Your task to perform on an android device: all mails in gmail Image 0: 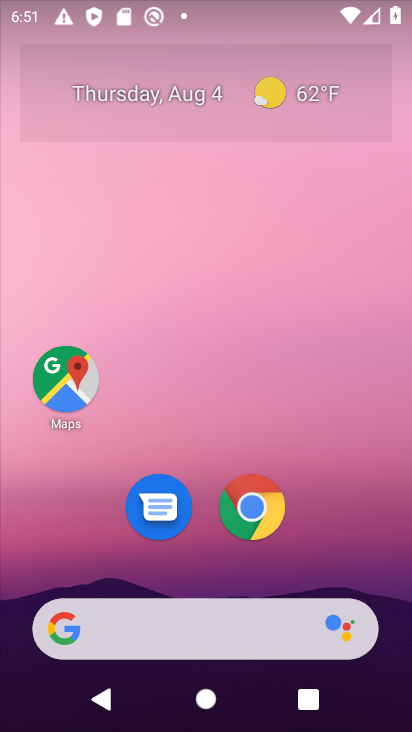
Step 0: drag from (374, 664) to (313, 62)
Your task to perform on an android device: all mails in gmail Image 1: 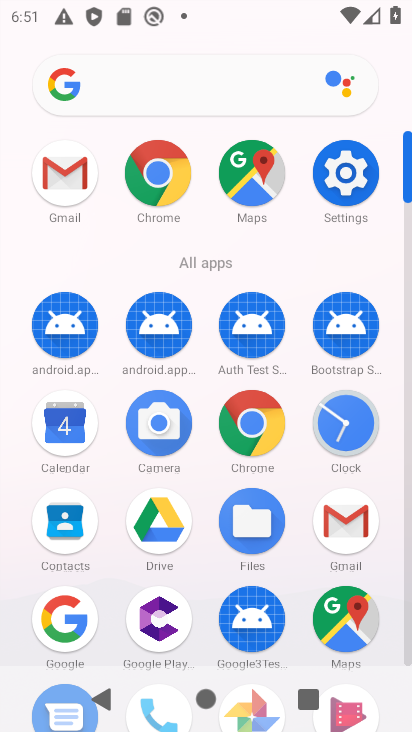
Step 1: click (67, 188)
Your task to perform on an android device: all mails in gmail Image 2: 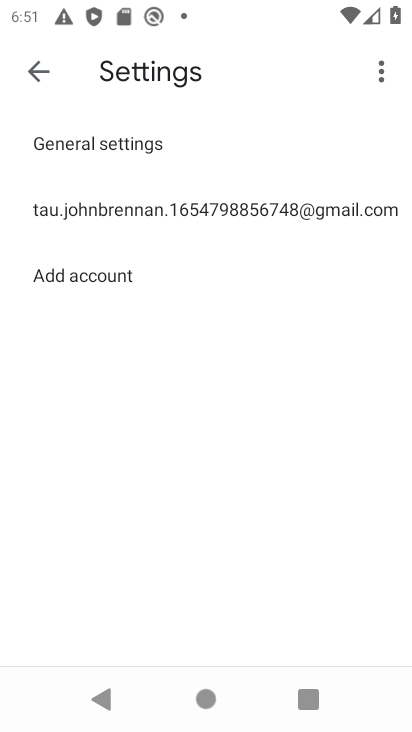
Step 2: press back button
Your task to perform on an android device: all mails in gmail Image 3: 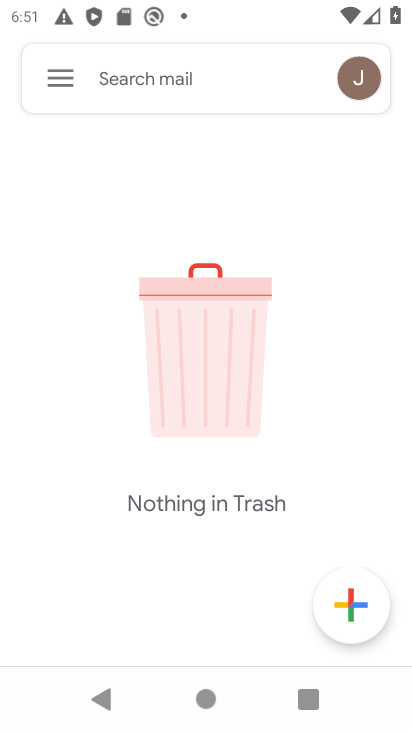
Step 3: click (26, 72)
Your task to perform on an android device: all mails in gmail Image 4: 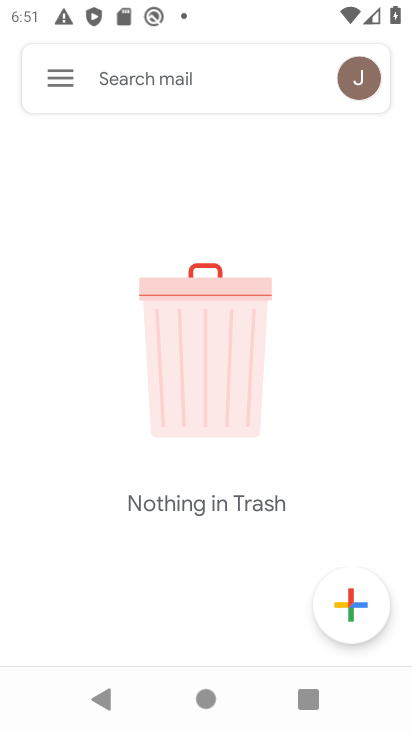
Step 4: click (64, 65)
Your task to perform on an android device: all mails in gmail Image 5: 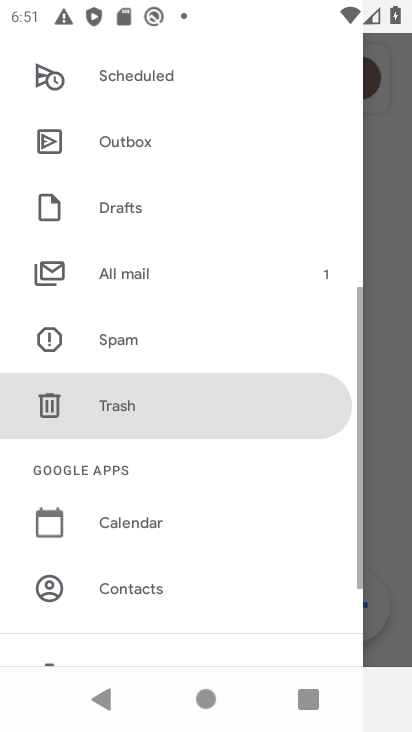
Step 5: drag from (105, 171) to (140, 600)
Your task to perform on an android device: all mails in gmail Image 6: 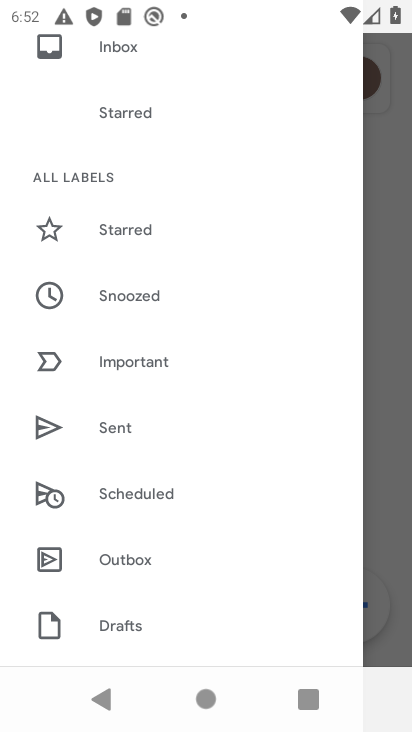
Step 6: drag from (157, 199) to (171, 594)
Your task to perform on an android device: all mails in gmail Image 7: 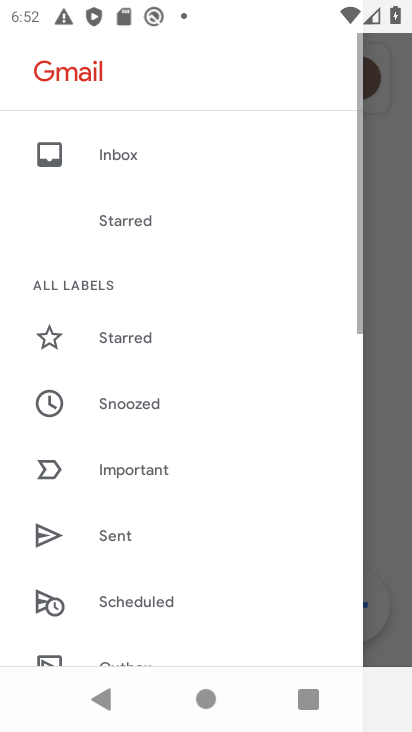
Step 7: drag from (171, 594) to (185, 161)
Your task to perform on an android device: all mails in gmail Image 8: 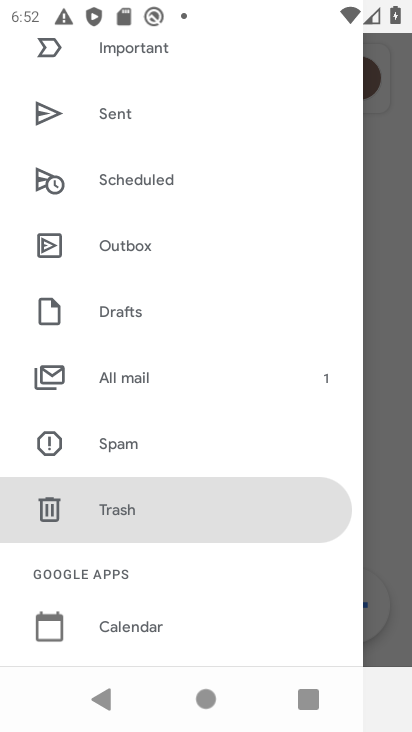
Step 8: click (157, 387)
Your task to perform on an android device: all mails in gmail Image 9: 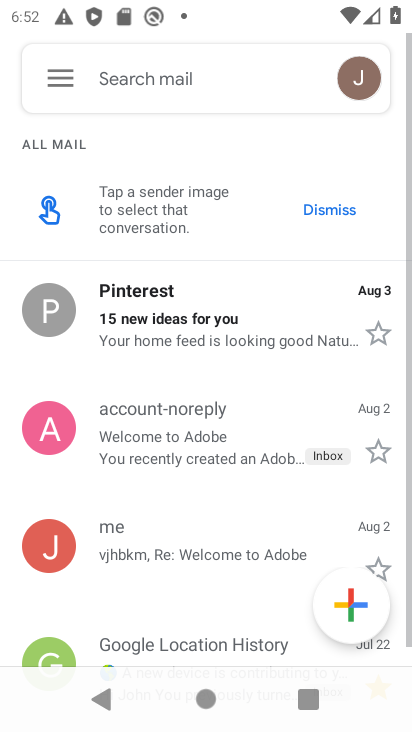
Step 9: task complete